Your task to perform on an android device: turn on airplane mode Image 0: 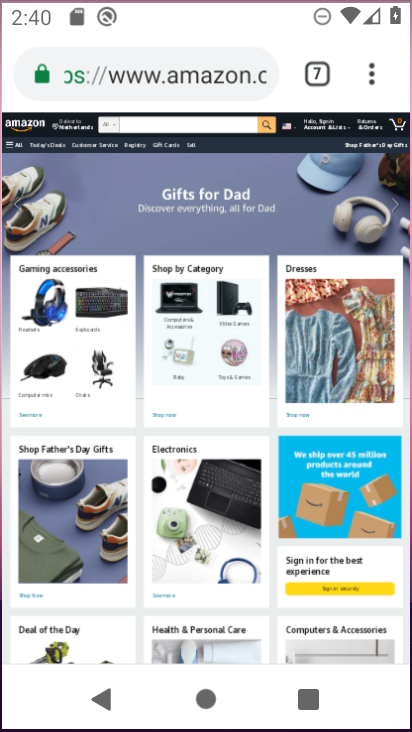
Step 0: drag from (328, 617) to (344, 103)
Your task to perform on an android device: turn on airplane mode Image 1: 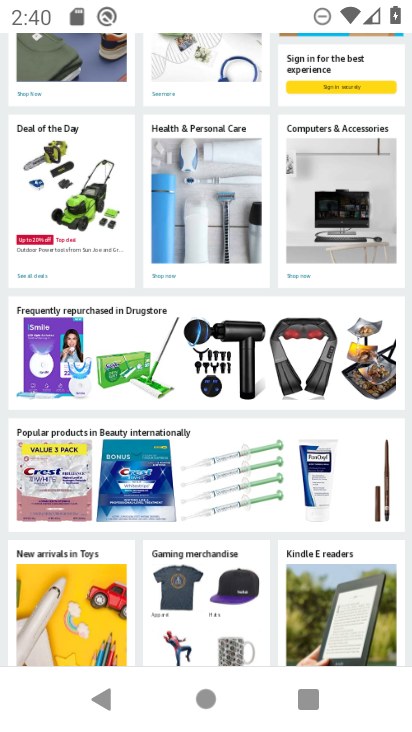
Step 1: press home button
Your task to perform on an android device: turn on airplane mode Image 2: 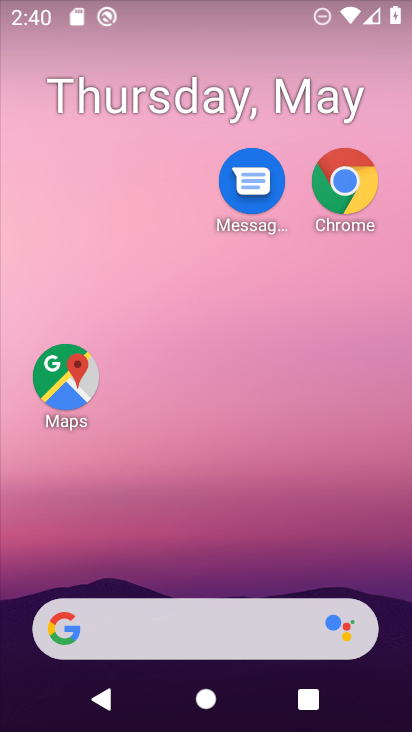
Step 2: drag from (180, 11) to (210, 652)
Your task to perform on an android device: turn on airplane mode Image 3: 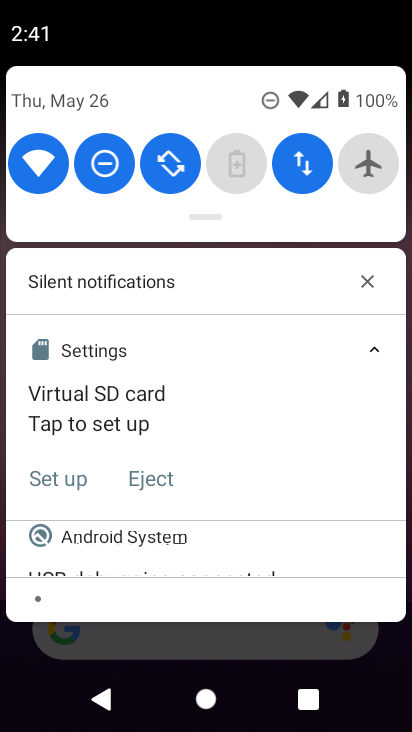
Step 3: drag from (251, 209) to (350, 696)
Your task to perform on an android device: turn on airplane mode Image 4: 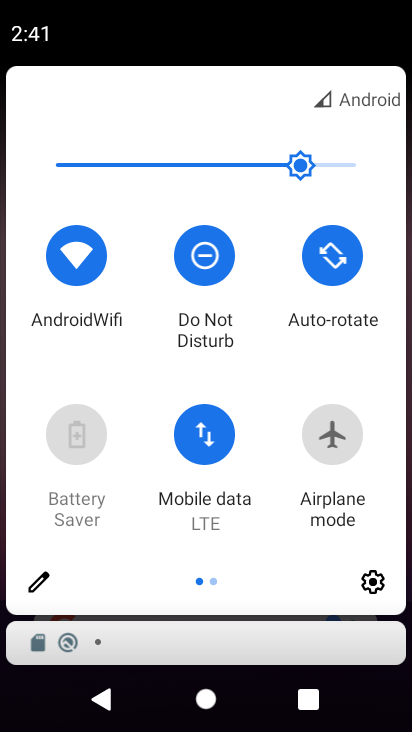
Step 4: click (348, 429)
Your task to perform on an android device: turn on airplane mode Image 5: 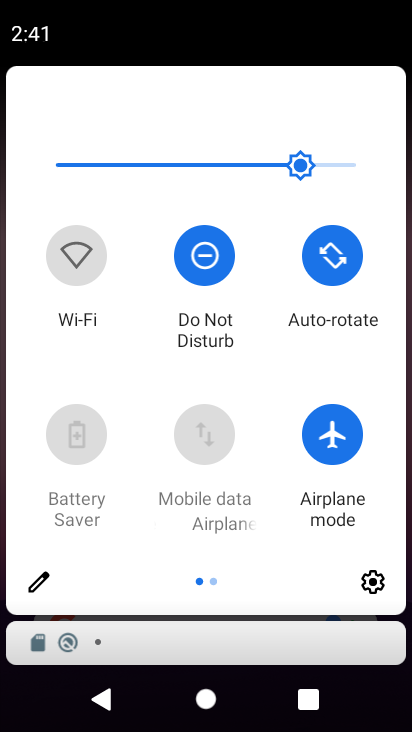
Step 5: task complete